Your task to perform on an android device: What's on my calendar tomorrow? Image 0: 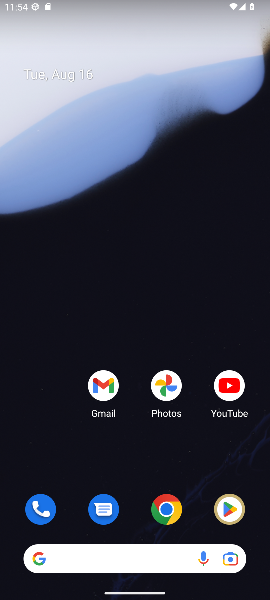
Step 0: drag from (134, 526) to (107, 87)
Your task to perform on an android device: What's on my calendar tomorrow? Image 1: 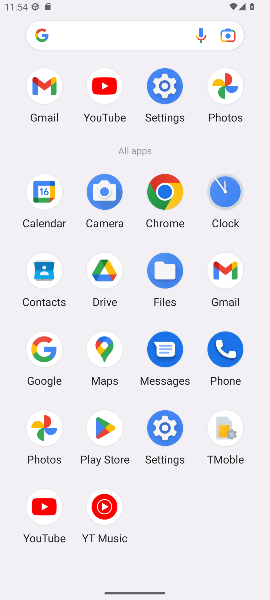
Step 1: click (42, 207)
Your task to perform on an android device: What's on my calendar tomorrow? Image 2: 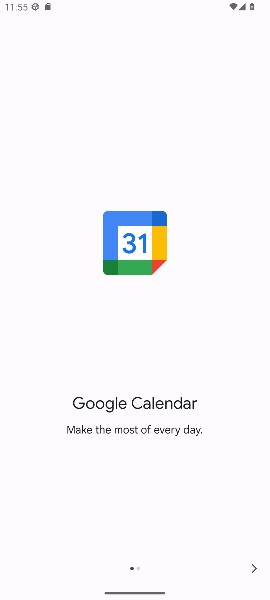
Step 2: click (253, 571)
Your task to perform on an android device: What's on my calendar tomorrow? Image 3: 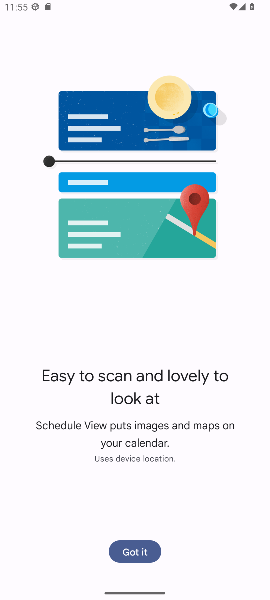
Step 3: click (137, 549)
Your task to perform on an android device: What's on my calendar tomorrow? Image 4: 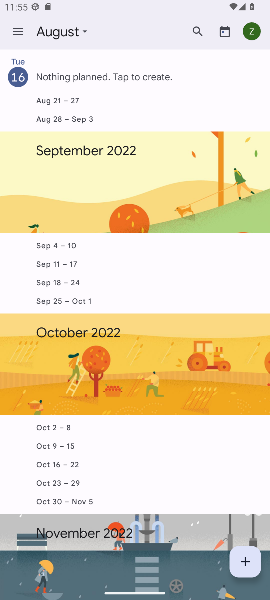
Step 4: click (81, 29)
Your task to perform on an android device: What's on my calendar tomorrow? Image 5: 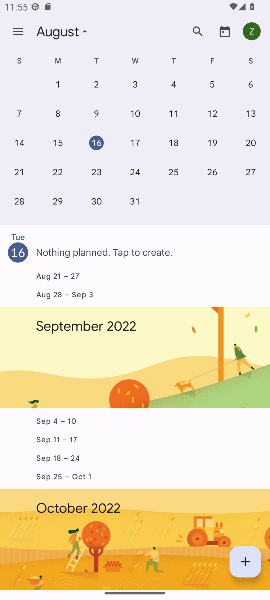
Step 5: click (130, 141)
Your task to perform on an android device: What's on my calendar tomorrow? Image 6: 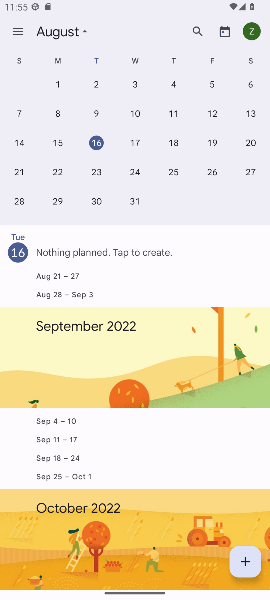
Step 6: click (138, 144)
Your task to perform on an android device: What's on my calendar tomorrow? Image 7: 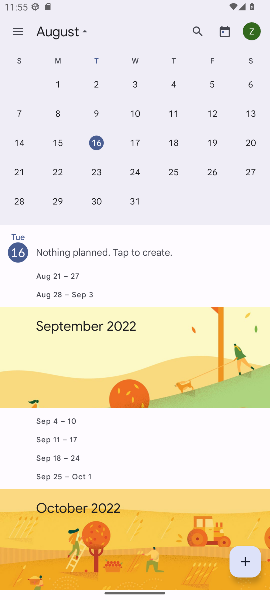
Step 7: click (138, 144)
Your task to perform on an android device: What's on my calendar tomorrow? Image 8: 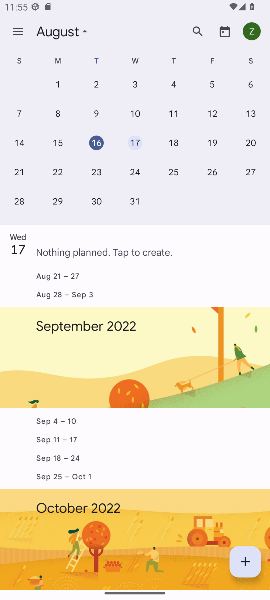
Step 8: task complete